Your task to perform on an android device: Go to Yahoo.com Image 0: 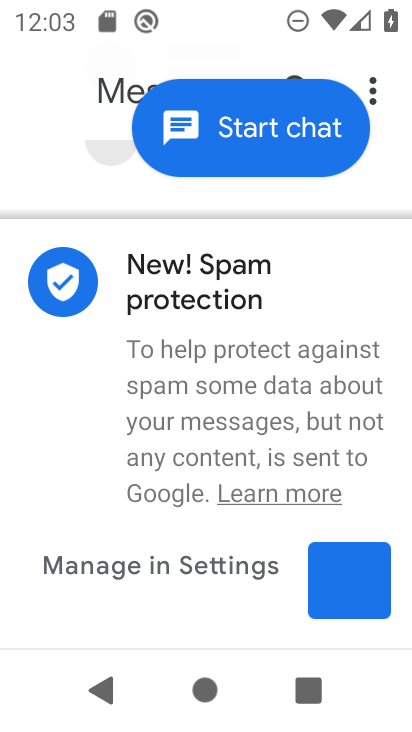
Step 0: press home button
Your task to perform on an android device: Go to Yahoo.com Image 1: 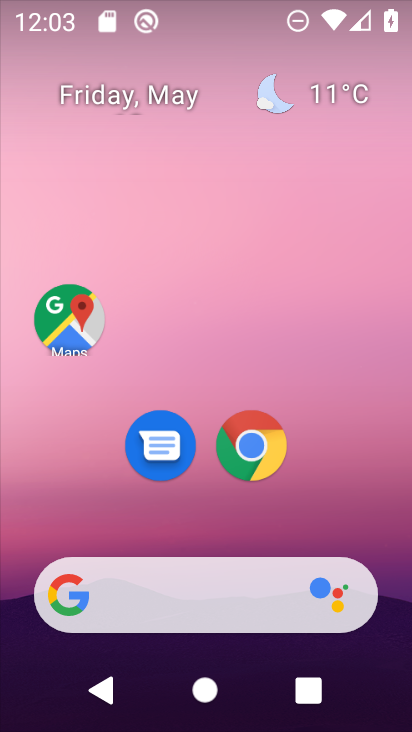
Step 1: drag from (192, 560) to (262, 32)
Your task to perform on an android device: Go to Yahoo.com Image 2: 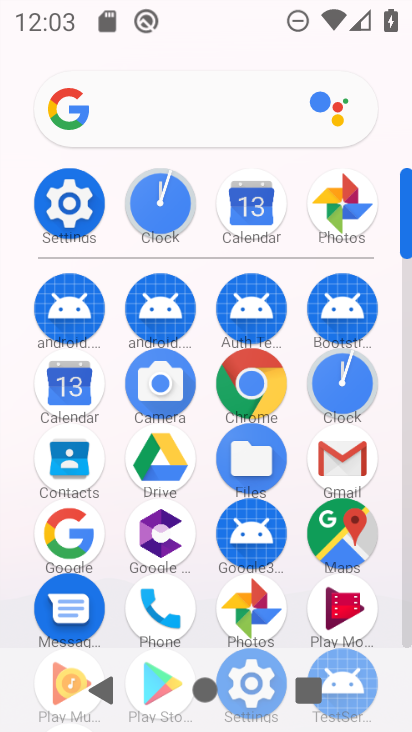
Step 2: click (253, 387)
Your task to perform on an android device: Go to Yahoo.com Image 3: 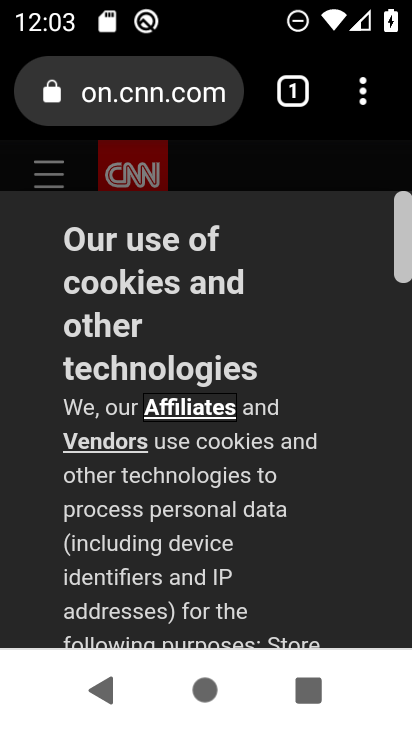
Step 3: click (126, 102)
Your task to perform on an android device: Go to Yahoo.com Image 4: 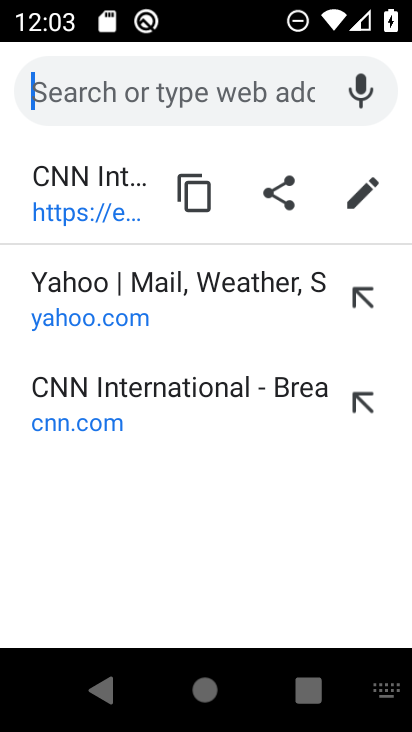
Step 4: click (183, 322)
Your task to perform on an android device: Go to Yahoo.com Image 5: 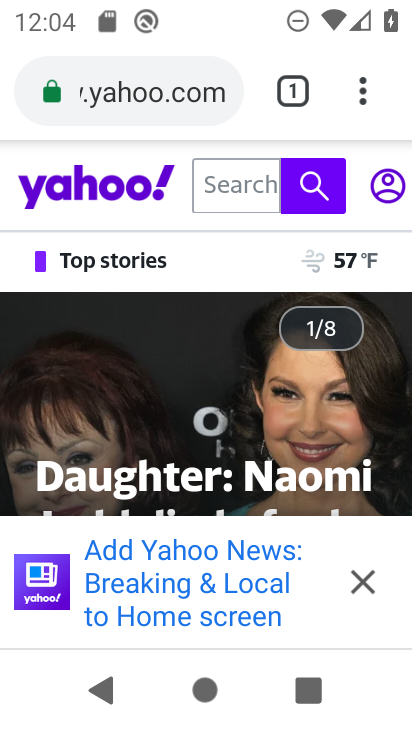
Step 5: task complete